Your task to perform on an android device: add a contact in the contacts app Image 0: 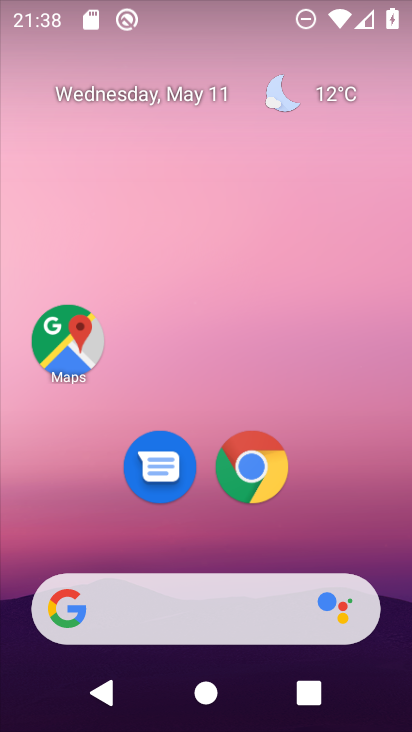
Step 0: press home button
Your task to perform on an android device: add a contact in the contacts app Image 1: 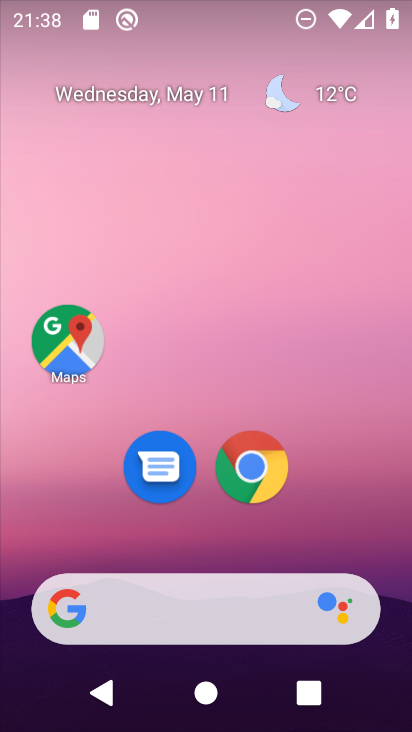
Step 1: drag from (195, 542) to (215, 32)
Your task to perform on an android device: add a contact in the contacts app Image 2: 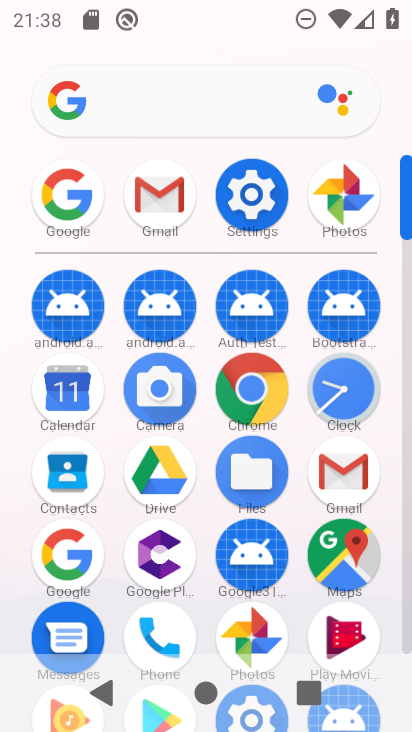
Step 2: click (73, 471)
Your task to perform on an android device: add a contact in the contacts app Image 3: 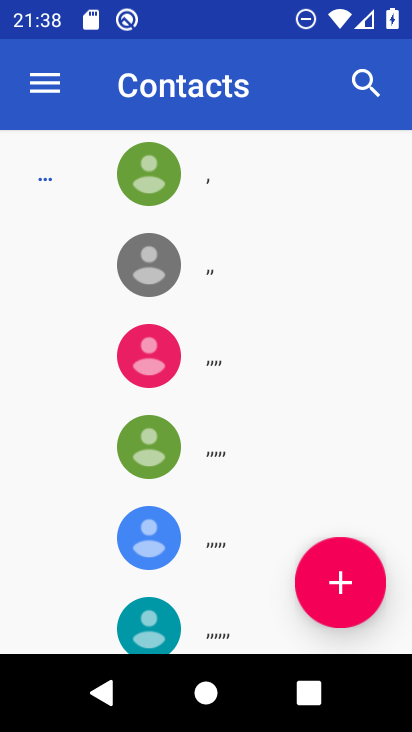
Step 3: press home button
Your task to perform on an android device: add a contact in the contacts app Image 4: 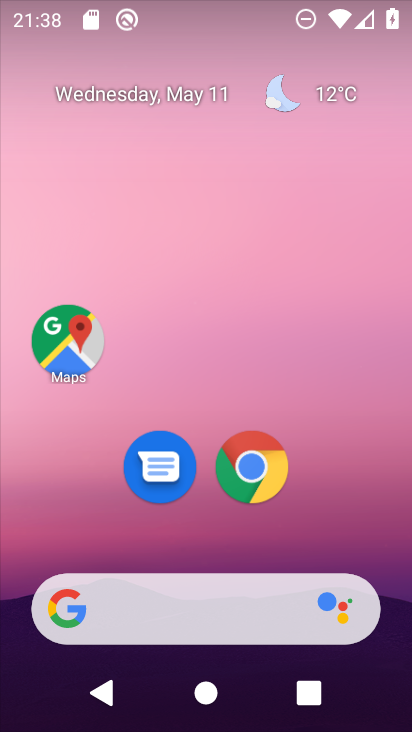
Step 4: drag from (205, 534) to (232, 6)
Your task to perform on an android device: add a contact in the contacts app Image 5: 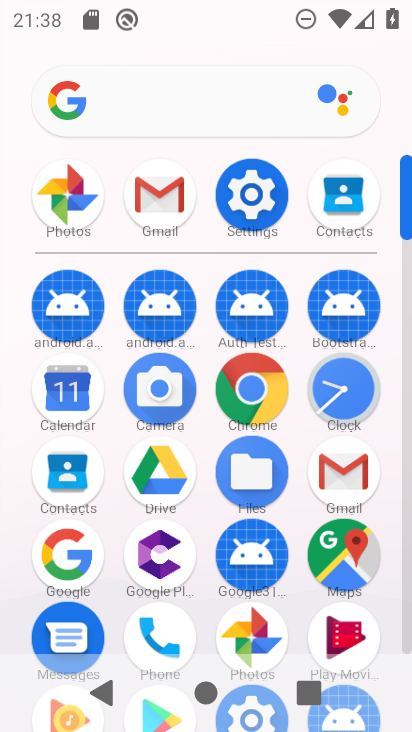
Step 5: click (68, 468)
Your task to perform on an android device: add a contact in the contacts app Image 6: 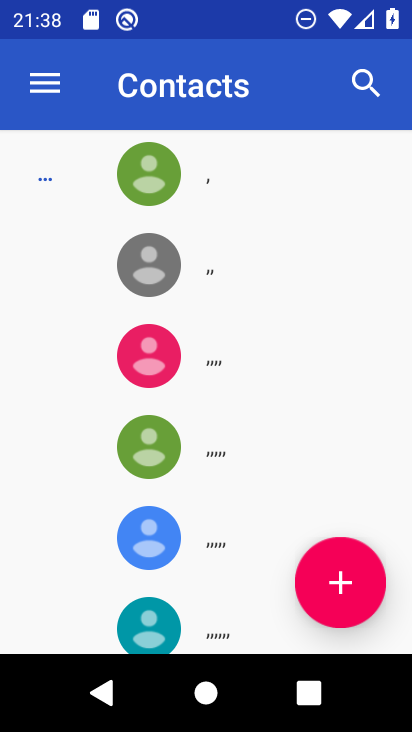
Step 6: click (331, 574)
Your task to perform on an android device: add a contact in the contacts app Image 7: 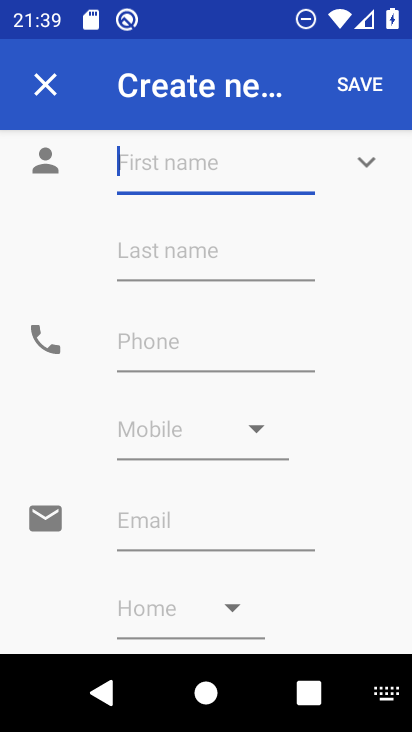
Step 7: type "gdgdcxn"
Your task to perform on an android device: add a contact in the contacts app Image 8: 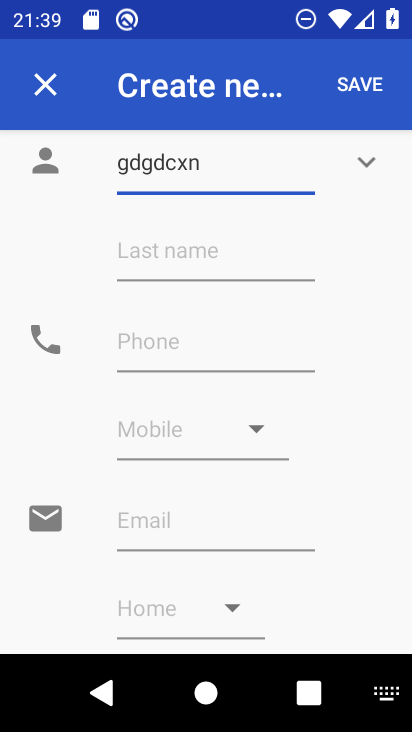
Step 8: click (360, 84)
Your task to perform on an android device: add a contact in the contacts app Image 9: 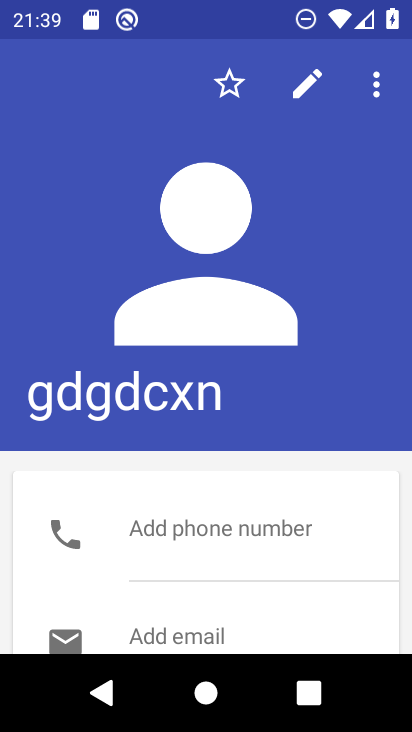
Step 9: task complete